Your task to perform on an android device: set default search engine in the chrome app Image 0: 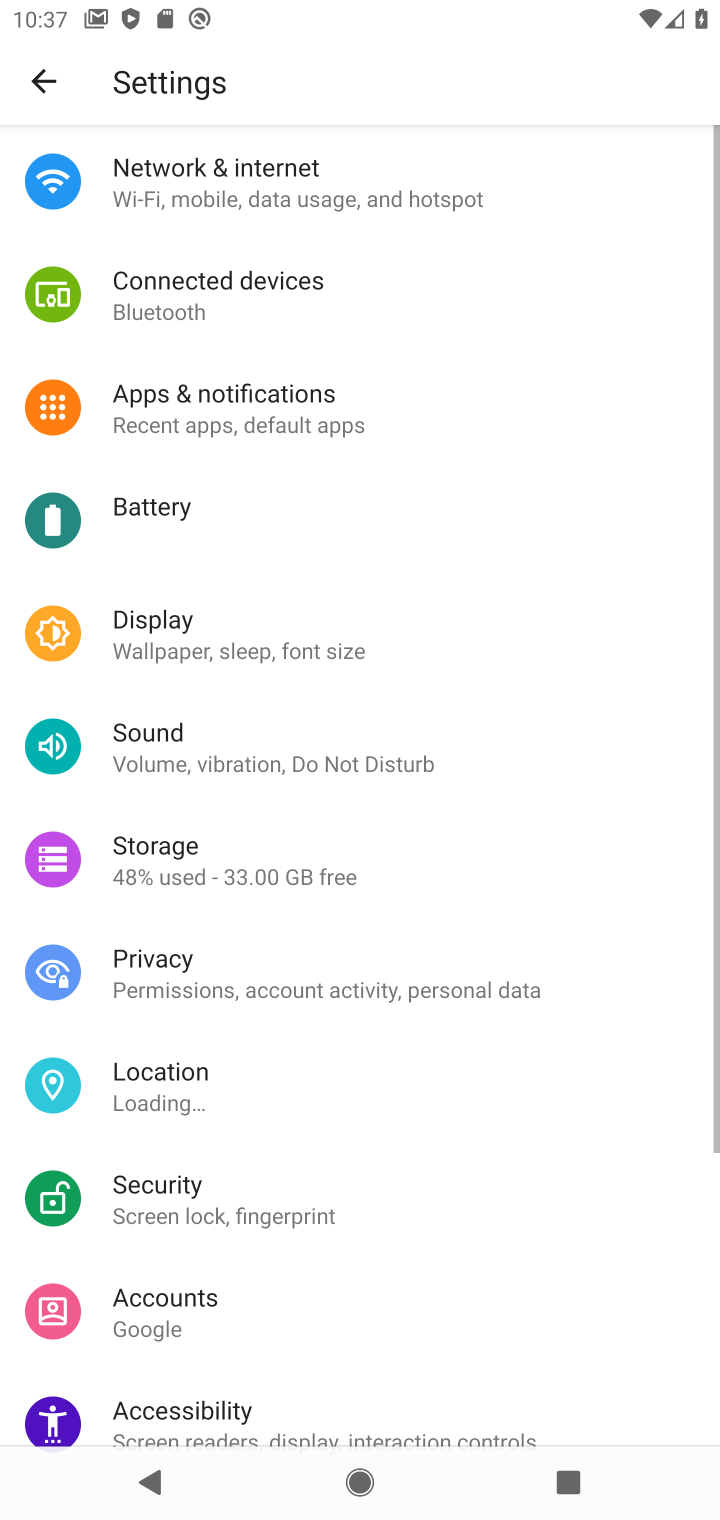
Step 0: press back button
Your task to perform on an android device: set default search engine in the chrome app Image 1: 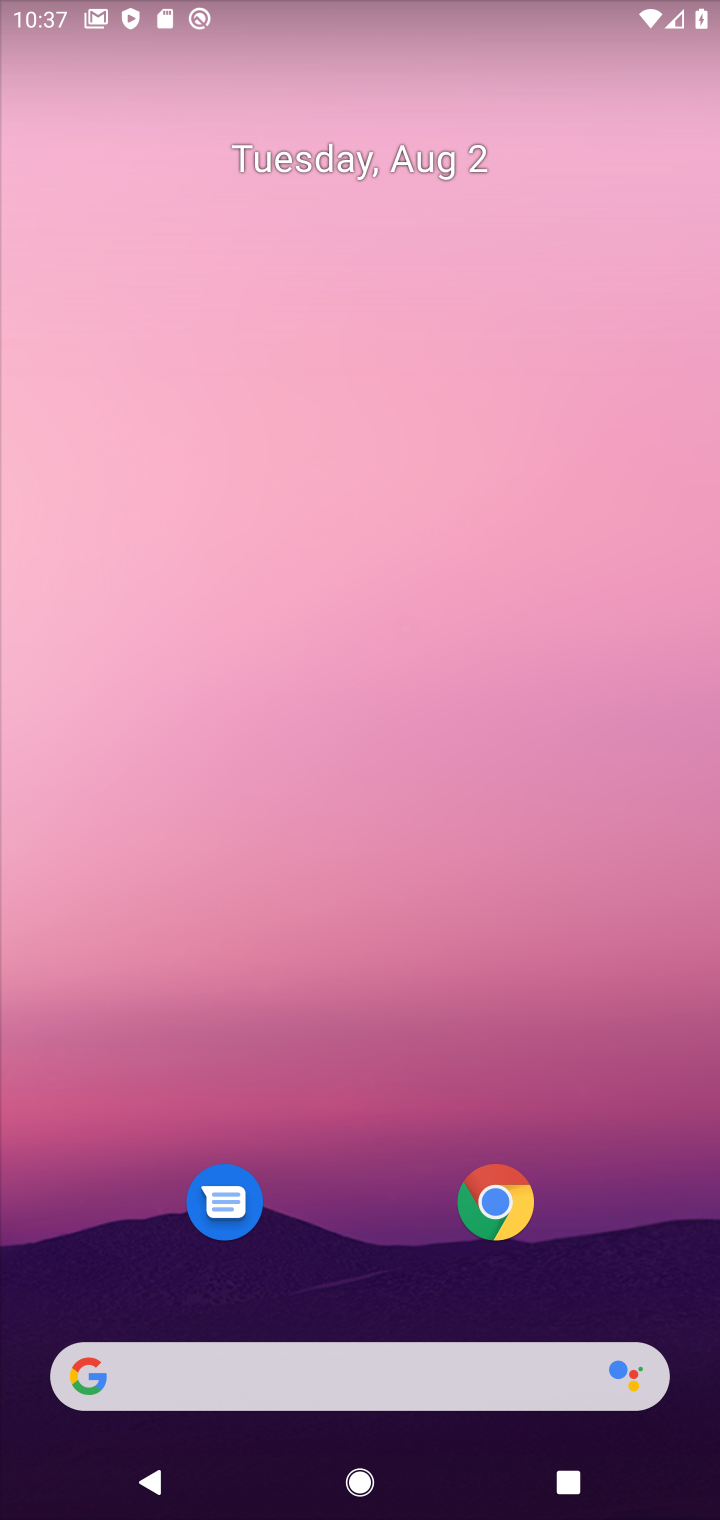
Step 1: drag from (650, 1291) to (499, 157)
Your task to perform on an android device: set default search engine in the chrome app Image 2: 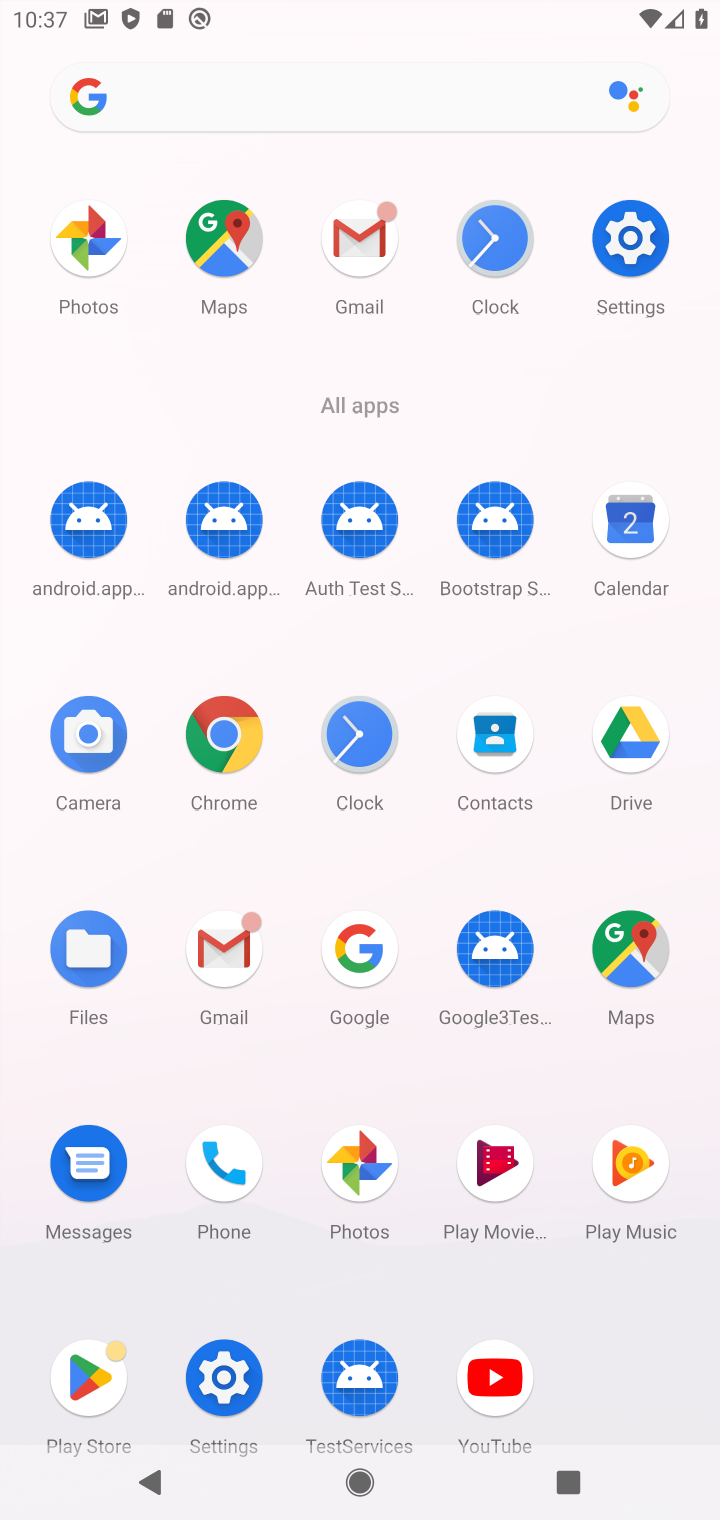
Step 2: click (220, 773)
Your task to perform on an android device: set default search engine in the chrome app Image 3: 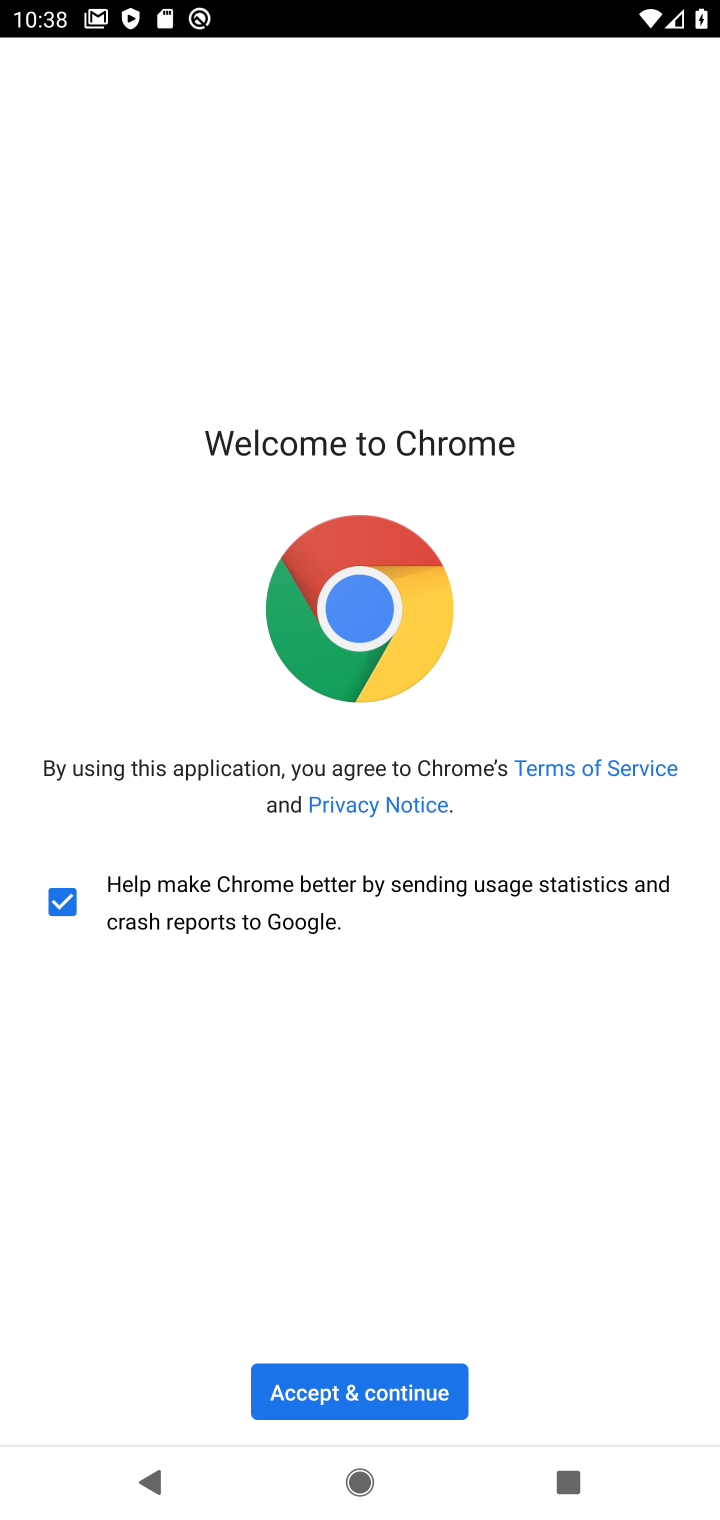
Step 3: click (425, 1402)
Your task to perform on an android device: set default search engine in the chrome app Image 4: 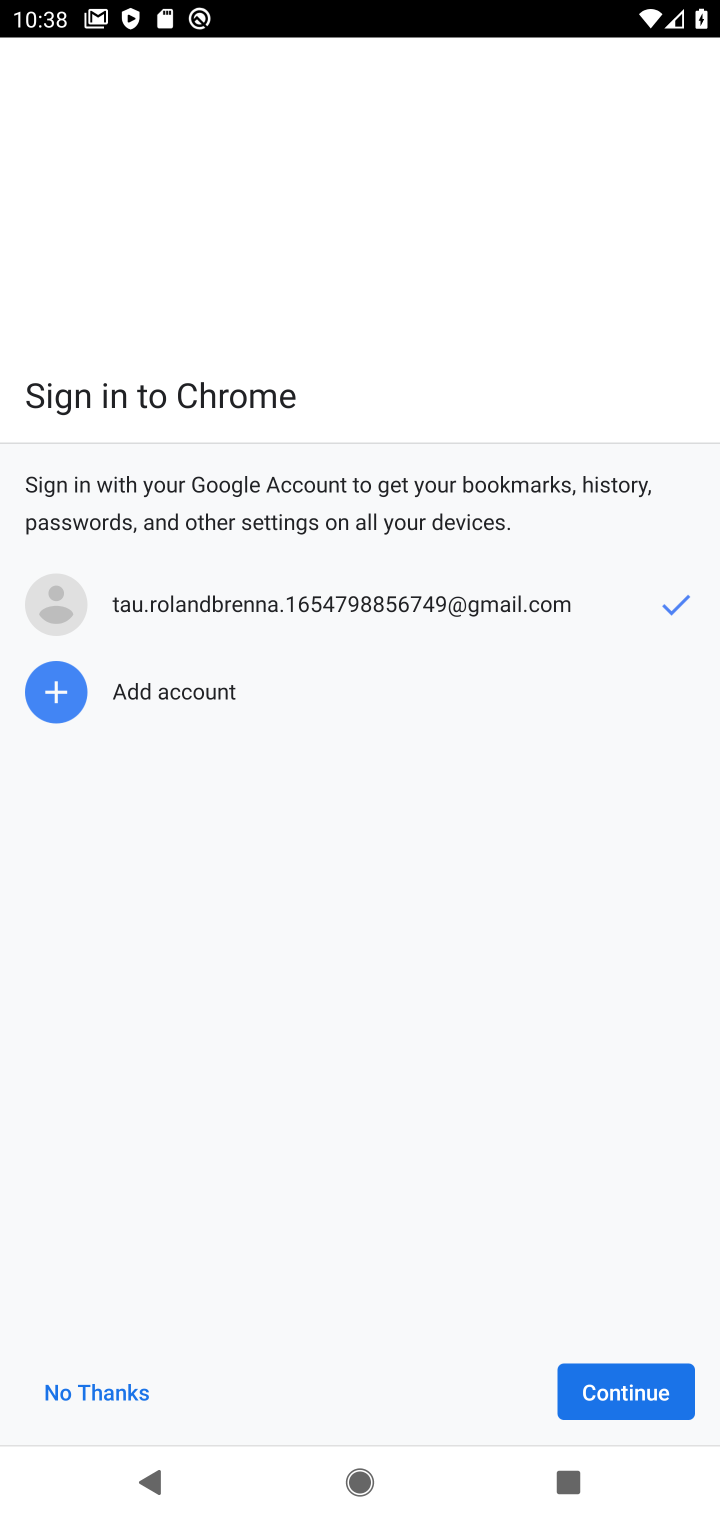
Step 4: click (629, 1385)
Your task to perform on an android device: set default search engine in the chrome app Image 5: 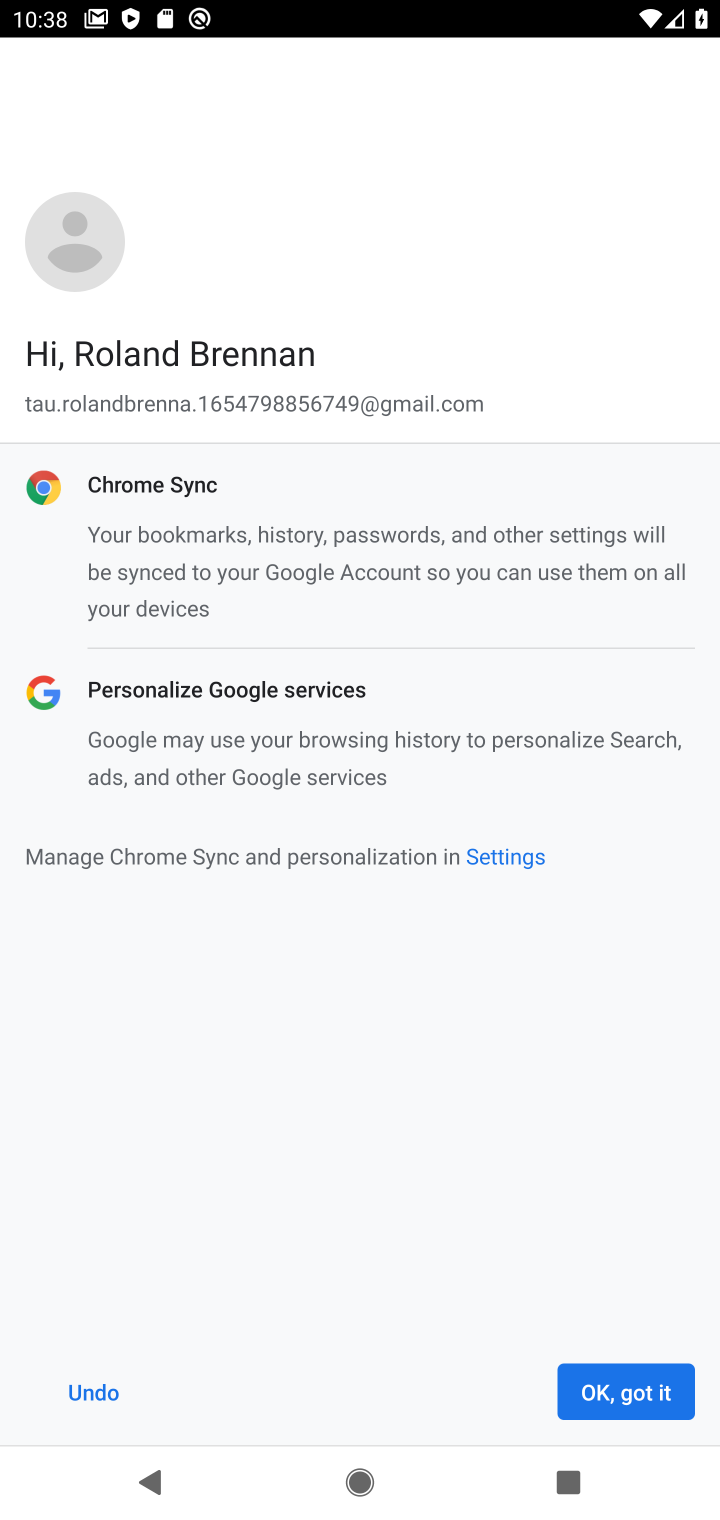
Step 5: click (641, 1391)
Your task to perform on an android device: set default search engine in the chrome app Image 6: 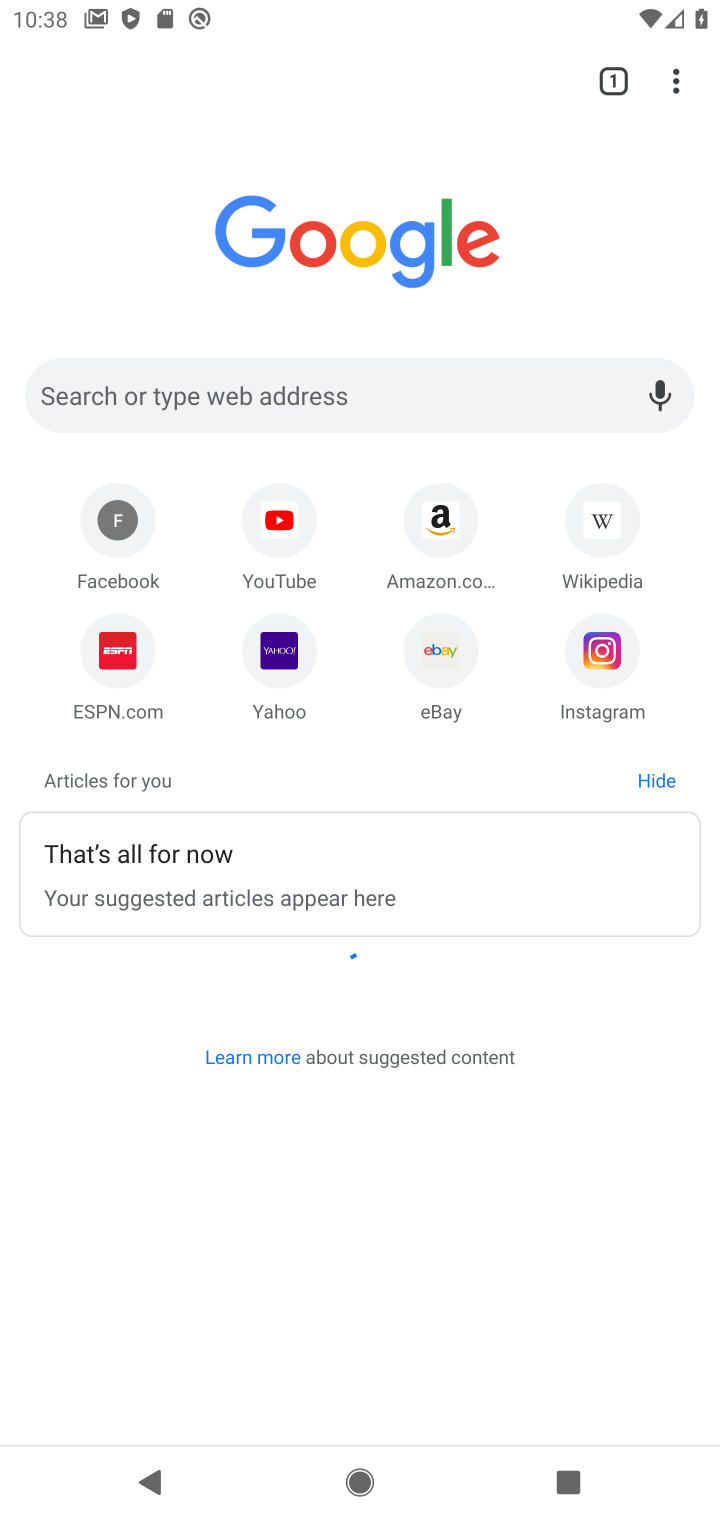
Step 6: click (677, 70)
Your task to perform on an android device: set default search engine in the chrome app Image 7: 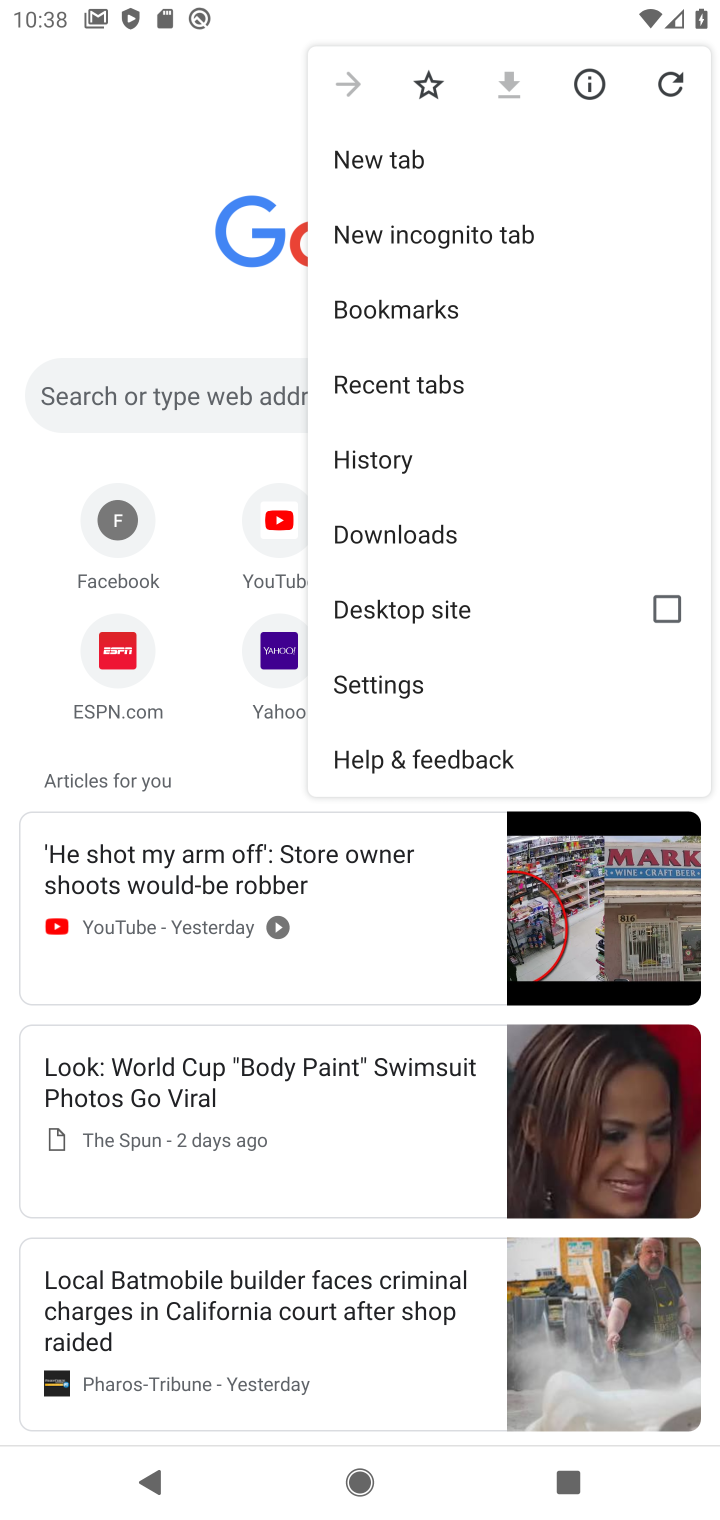
Step 7: click (498, 687)
Your task to perform on an android device: set default search engine in the chrome app Image 8: 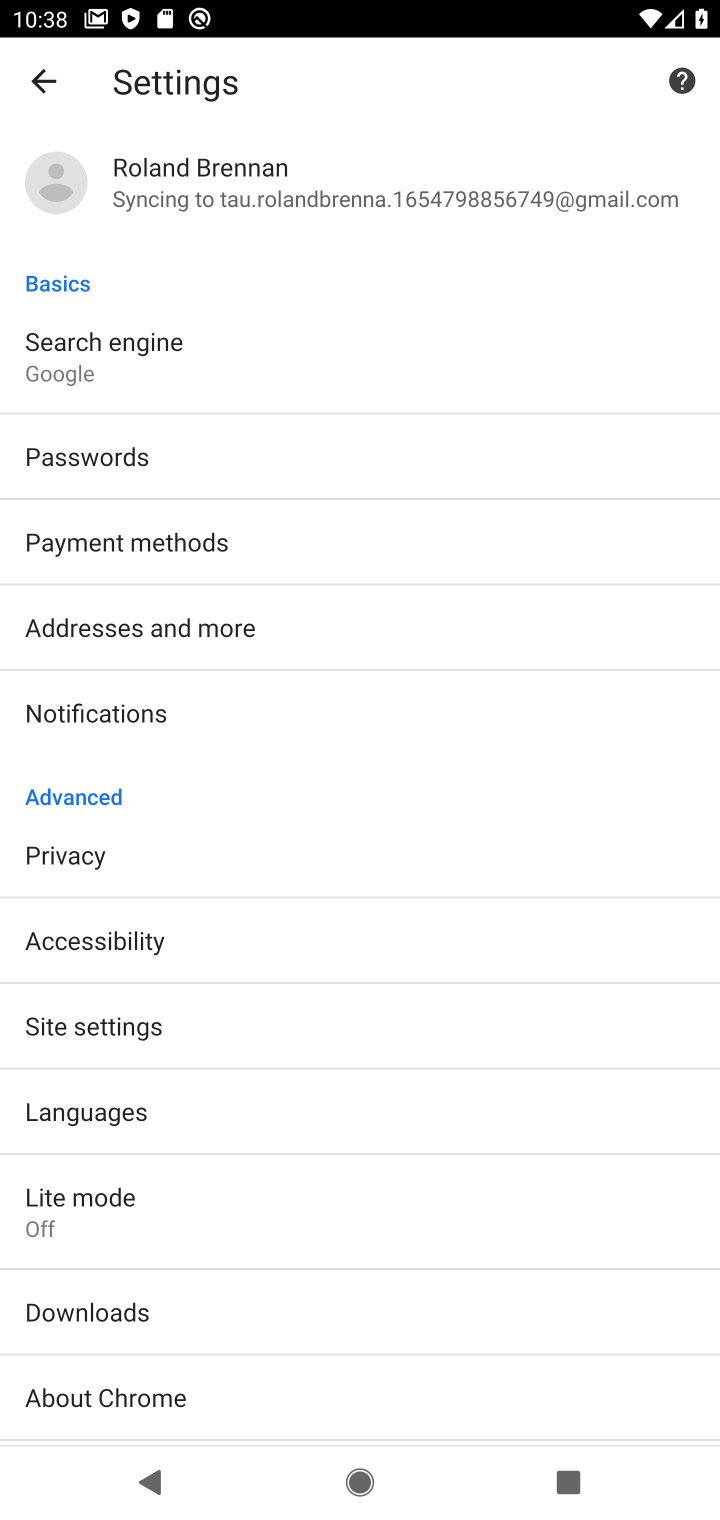
Step 8: click (361, 367)
Your task to perform on an android device: set default search engine in the chrome app Image 9: 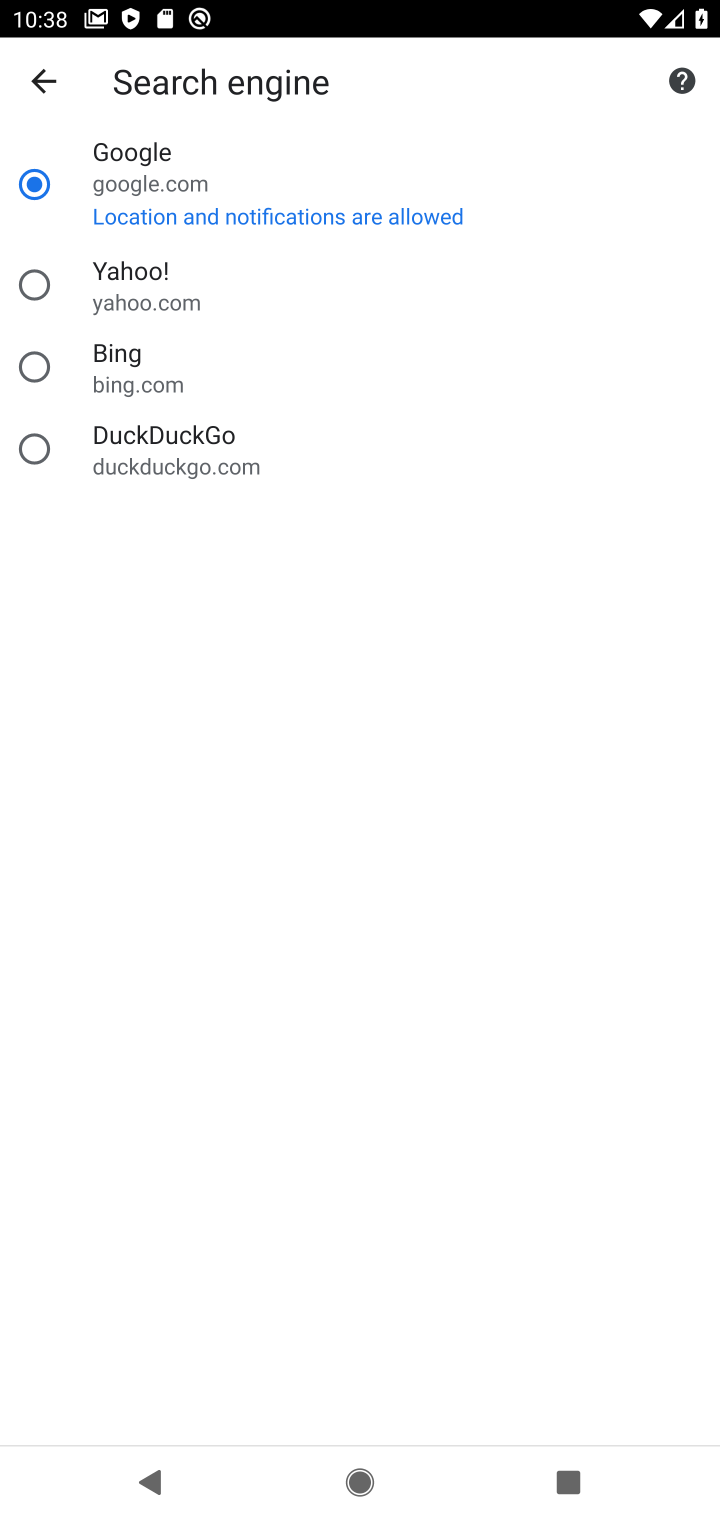
Step 9: click (328, 275)
Your task to perform on an android device: set default search engine in the chrome app Image 10: 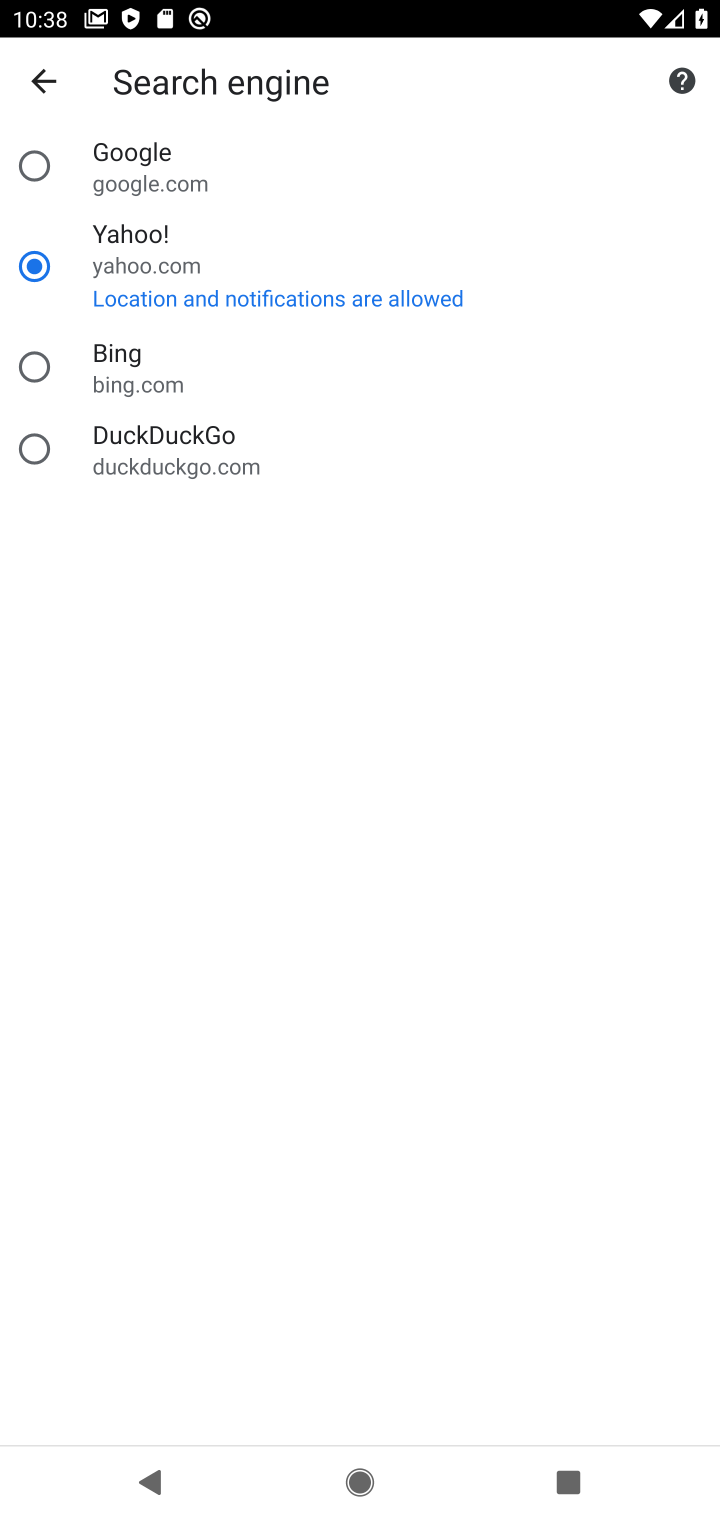
Step 10: task complete